Your task to perform on an android device: Open battery settings Image 0: 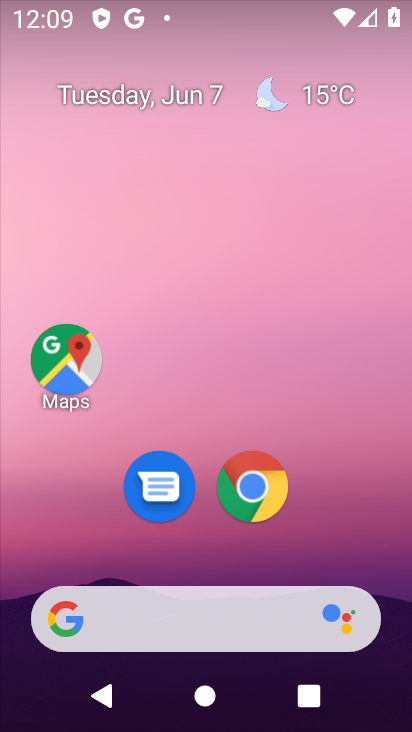
Step 0: drag from (325, 561) to (229, 32)
Your task to perform on an android device: Open battery settings Image 1: 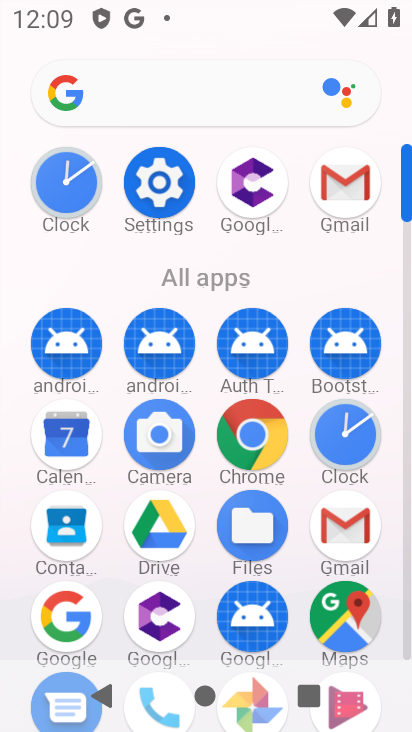
Step 1: click (170, 196)
Your task to perform on an android device: Open battery settings Image 2: 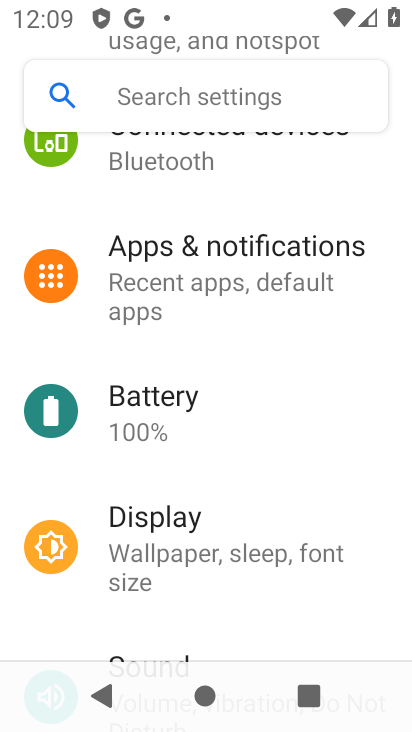
Step 2: click (222, 421)
Your task to perform on an android device: Open battery settings Image 3: 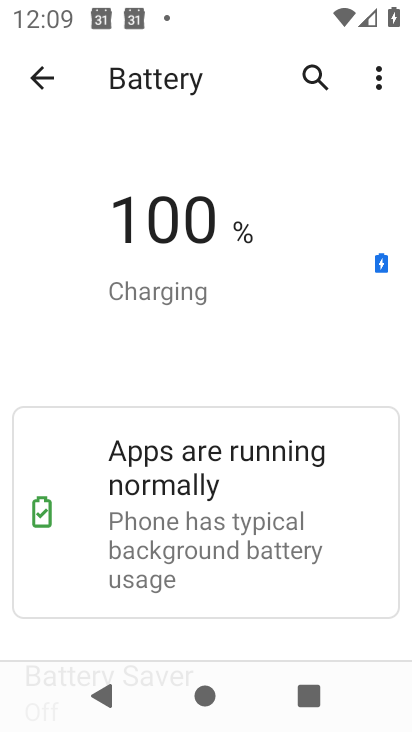
Step 3: task complete